Your task to perform on an android device: Open display settings Image 0: 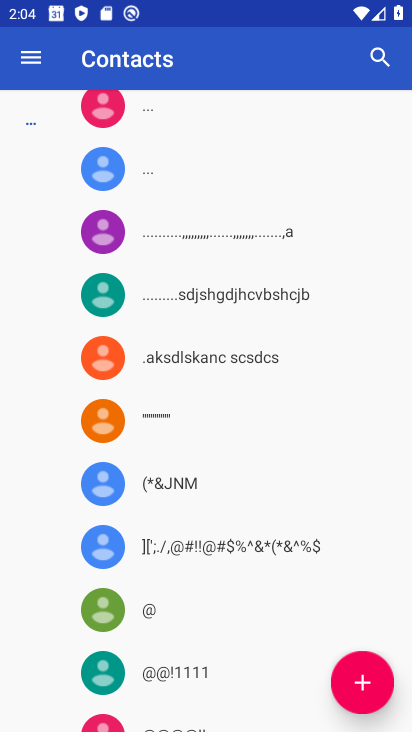
Step 0: press back button
Your task to perform on an android device: Open display settings Image 1: 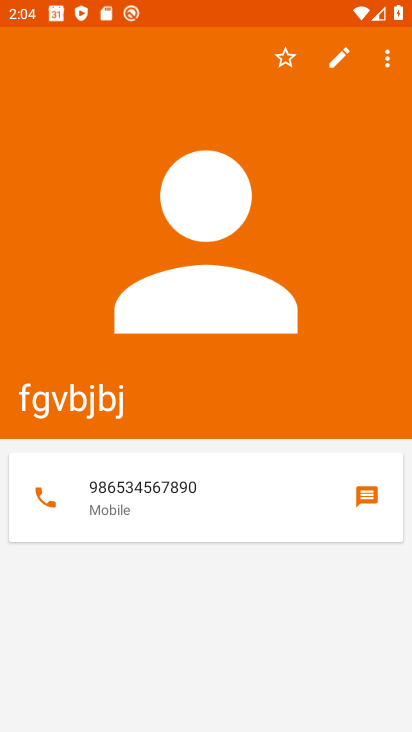
Step 1: press back button
Your task to perform on an android device: Open display settings Image 2: 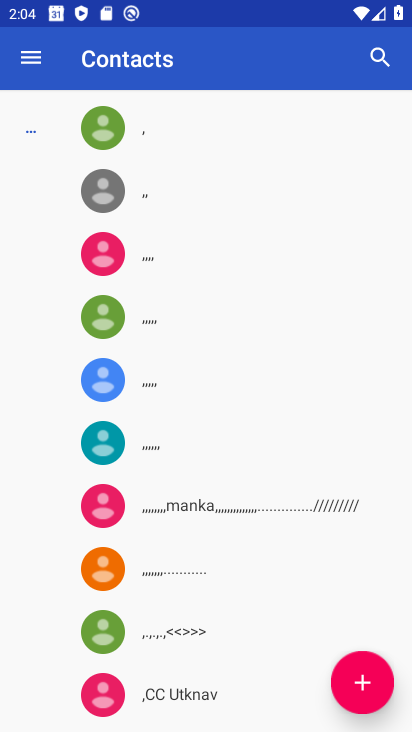
Step 2: press home button
Your task to perform on an android device: Open display settings Image 3: 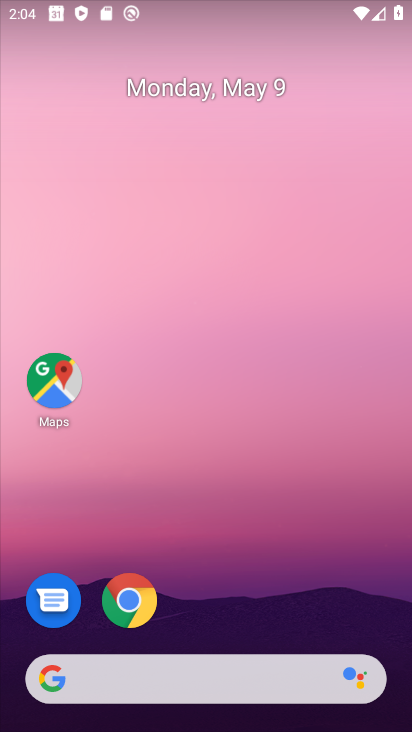
Step 3: drag from (274, 557) to (246, 28)
Your task to perform on an android device: Open display settings Image 4: 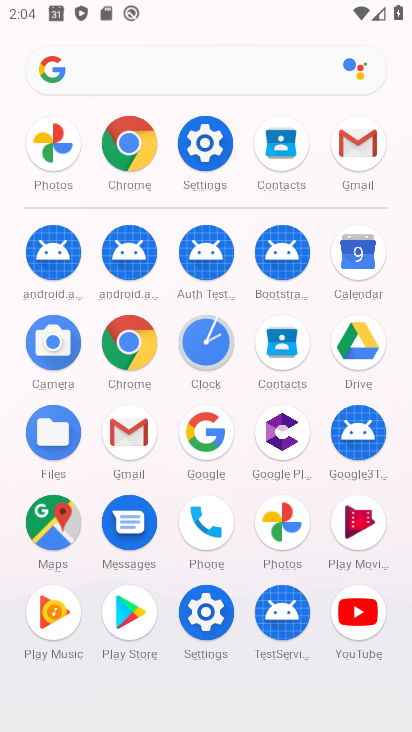
Step 4: click (203, 607)
Your task to perform on an android device: Open display settings Image 5: 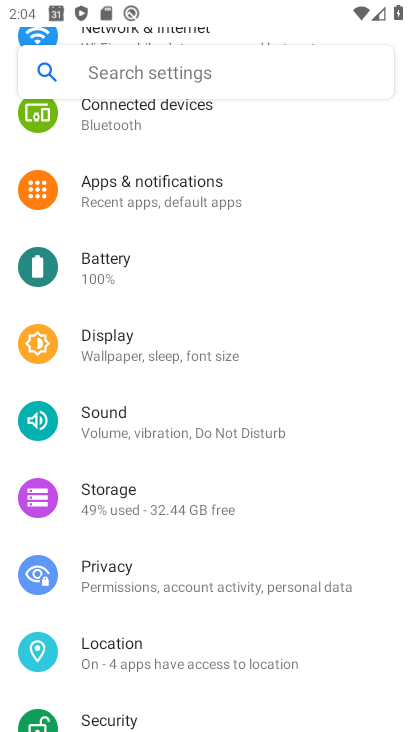
Step 5: drag from (213, 164) to (237, 607)
Your task to perform on an android device: Open display settings Image 6: 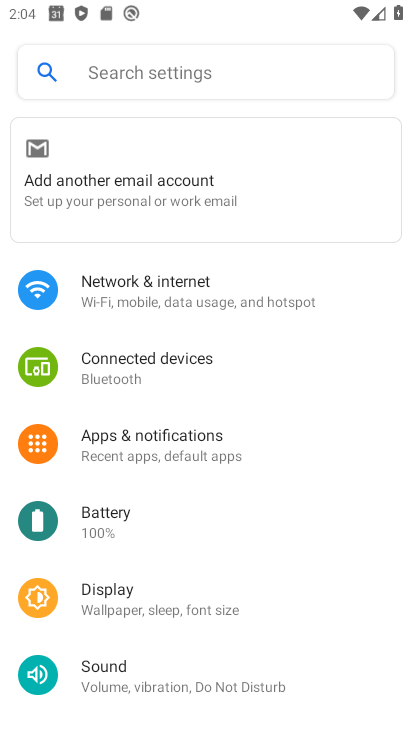
Step 6: click (156, 605)
Your task to perform on an android device: Open display settings Image 7: 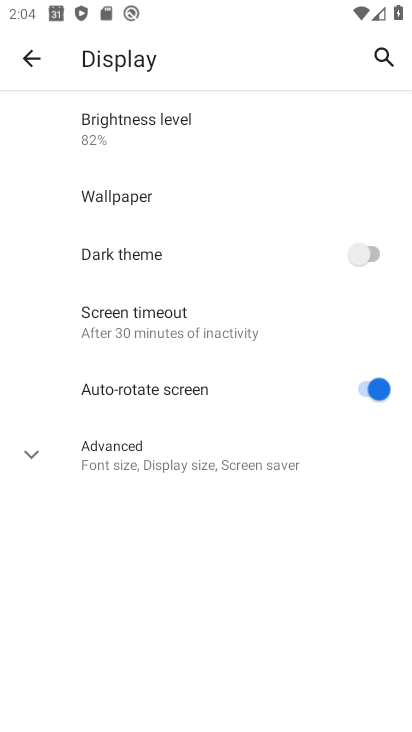
Step 7: click (33, 448)
Your task to perform on an android device: Open display settings Image 8: 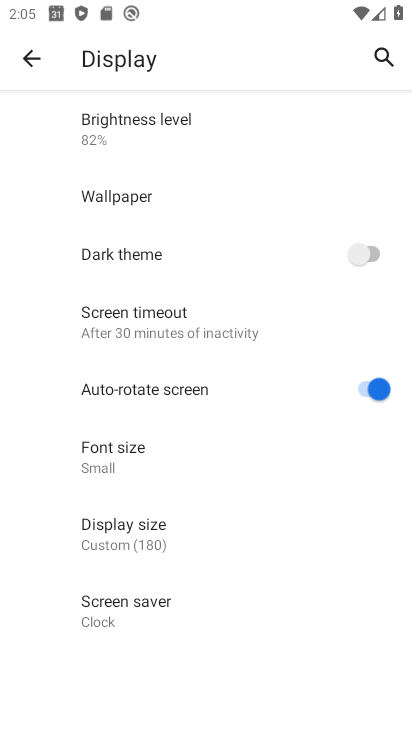
Step 8: task complete